Your task to perform on an android device: visit the assistant section in the google photos Image 0: 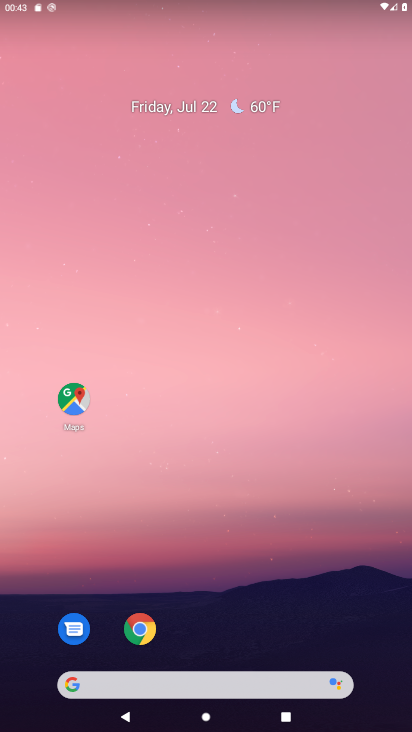
Step 0: drag from (242, 622) to (245, 155)
Your task to perform on an android device: visit the assistant section in the google photos Image 1: 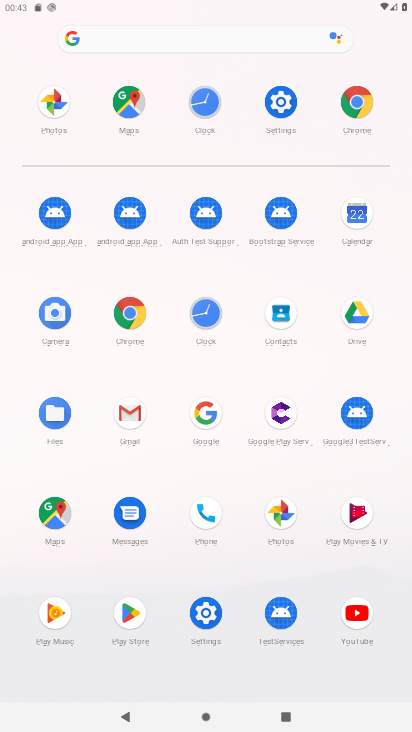
Step 1: click (292, 515)
Your task to perform on an android device: visit the assistant section in the google photos Image 2: 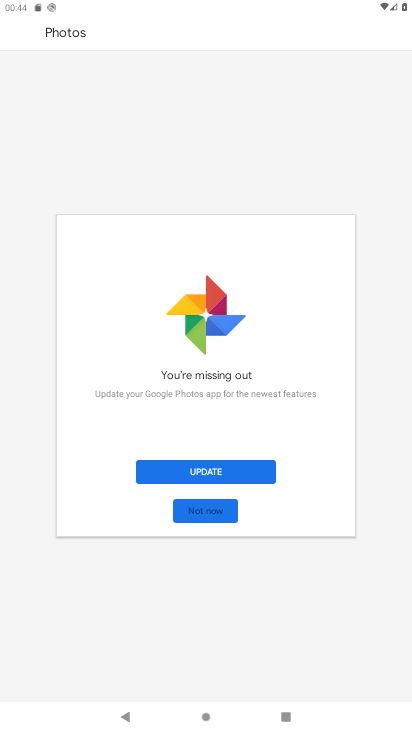
Step 2: click (225, 500)
Your task to perform on an android device: visit the assistant section in the google photos Image 3: 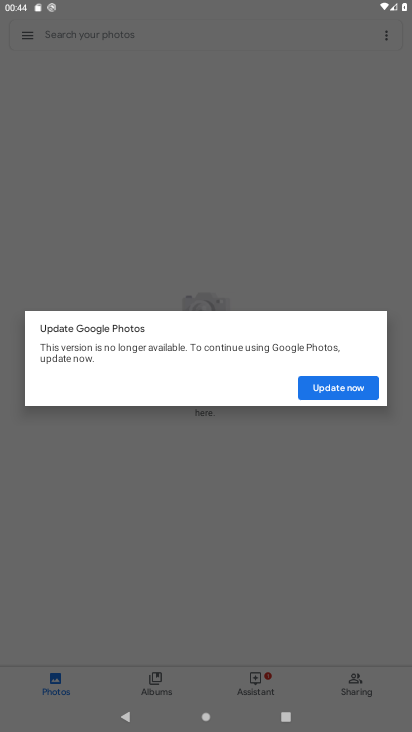
Step 3: click (316, 389)
Your task to perform on an android device: visit the assistant section in the google photos Image 4: 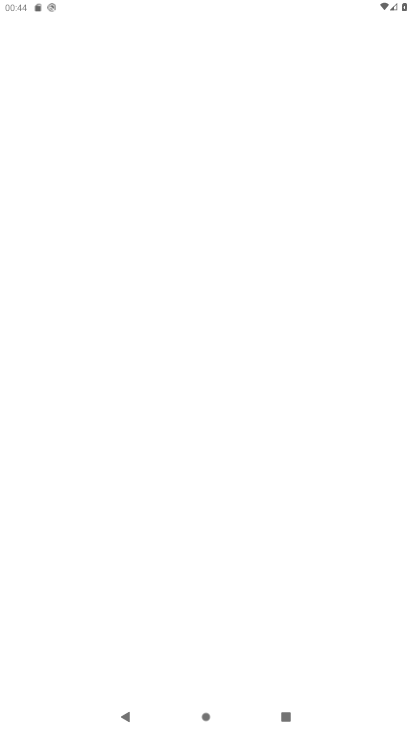
Step 4: press back button
Your task to perform on an android device: visit the assistant section in the google photos Image 5: 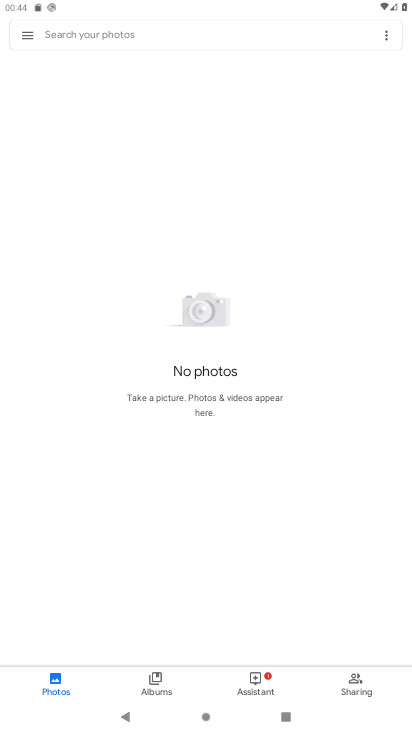
Step 5: click (246, 678)
Your task to perform on an android device: visit the assistant section in the google photos Image 6: 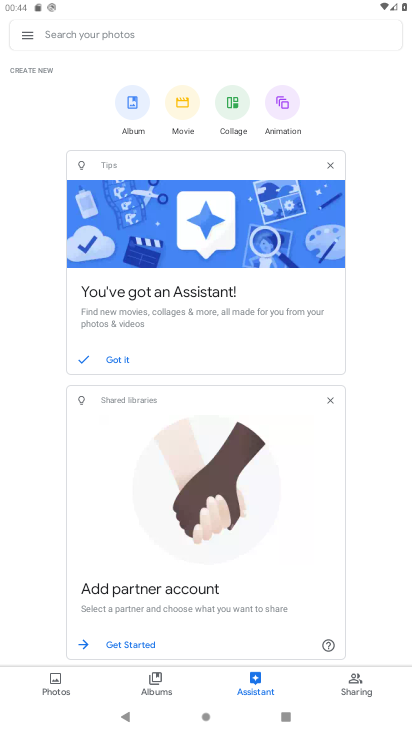
Step 6: task complete